Your task to perform on an android device: turn off notifications settings in the gmail app Image 0: 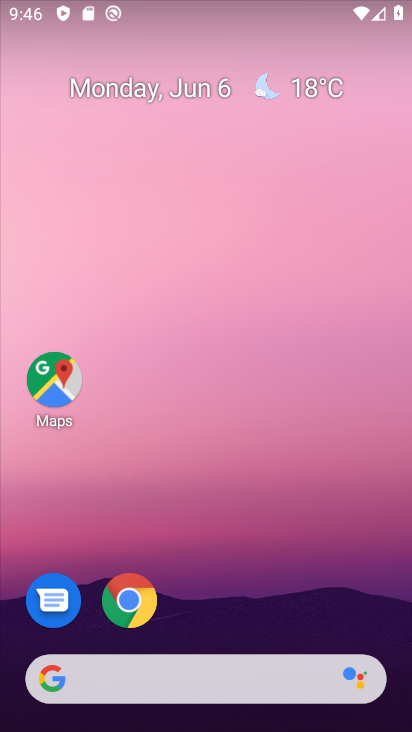
Step 0: drag from (280, 568) to (200, 17)
Your task to perform on an android device: turn off notifications settings in the gmail app Image 1: 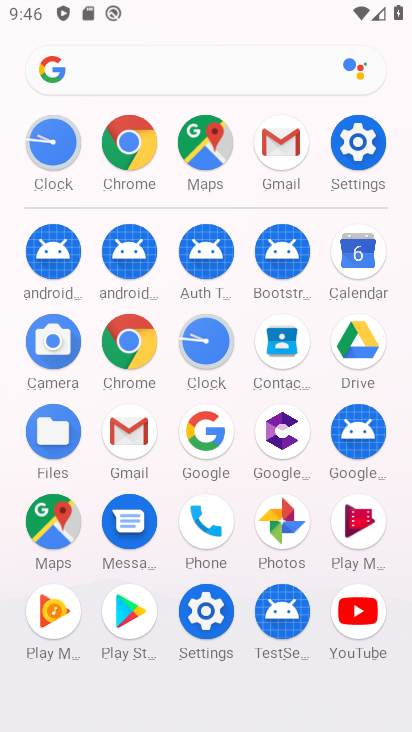
Step 1: drag from (19, 558) to (19, 231)
Your task to perform on an android device: turn off notifications settings in the gmail app Image 2: 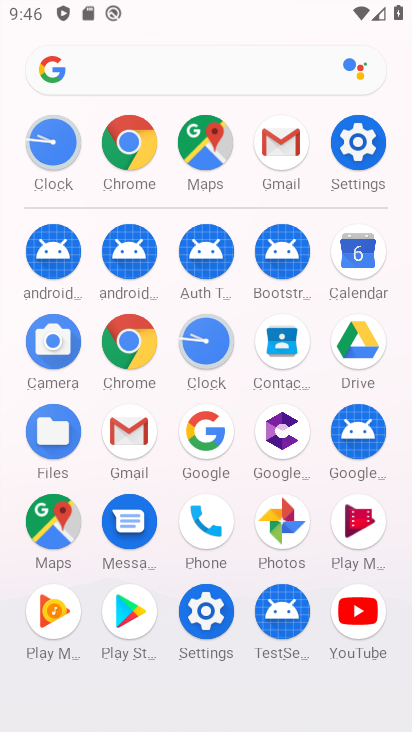
Step 2: click (135, 425)
Your task to perform on an android device: turn off notifications settings in the gmail app Image 3: 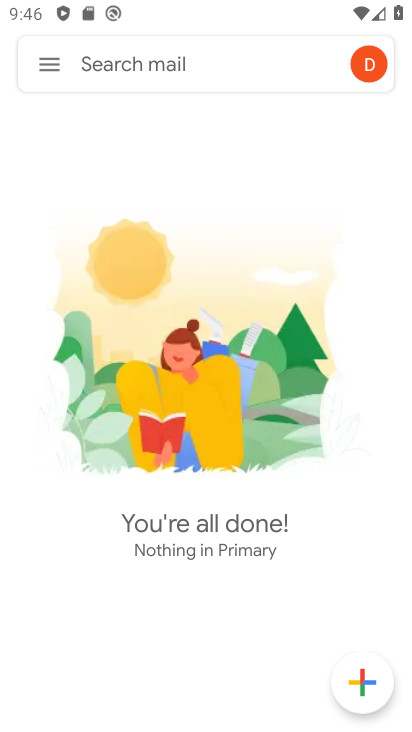
Step 3: click (43, 49)
Your task to perform on an android device: turn off notifications settings in the gmail app Image 4: 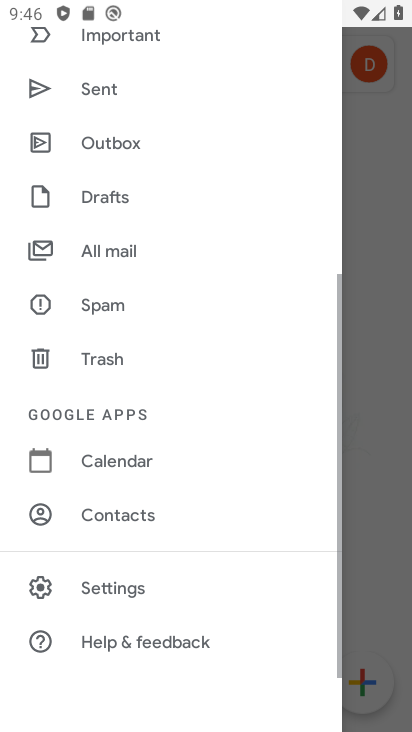
Step 4: click (152, 579)
Your task to perform on an android device: turn off notifications settings in the gmail app Image 5: 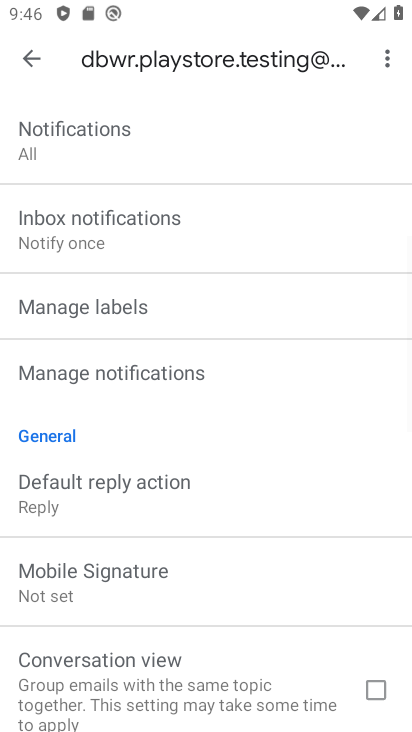
Step 5: click (164, 369)
Your task to perform on an android device: turn off notifications settings in the gmail app Image 6: 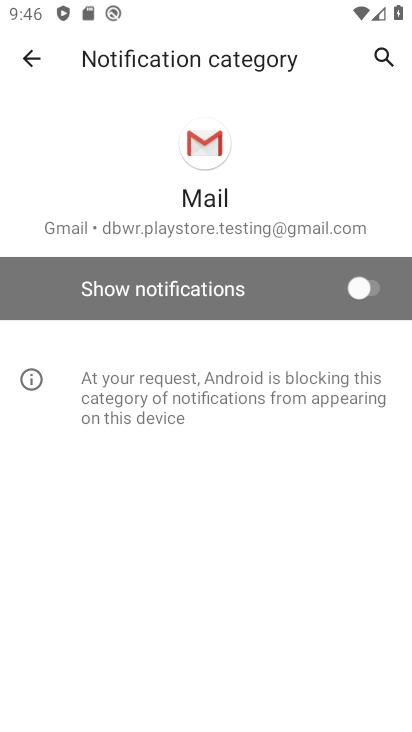
Step 6: task complete